Your task to perform on an android device: allow notifications from all sites in the chrome app Image 0: 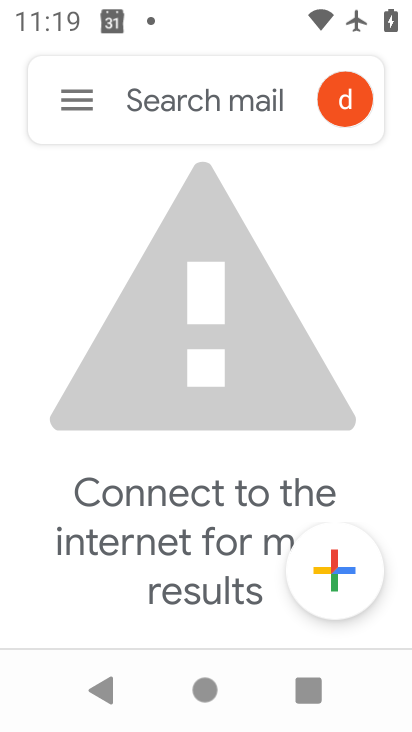
Step 0: press home button
Your task to perform on an android device: allow notifications from all sites in the chrome app Image 1: 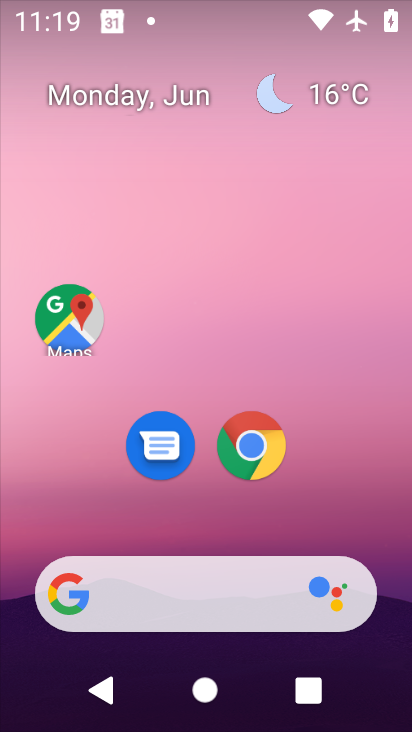
Step 1: click (274, 437)
Your task to perform on an android device: allow notifications from all sites in the chrome app Image 2: 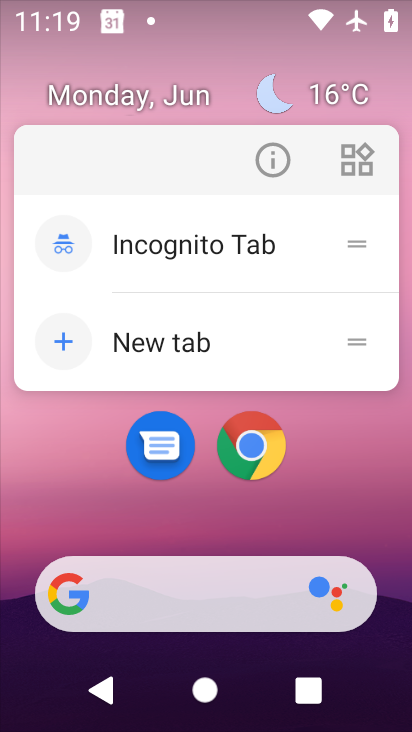
Step 2: click (263, 439)
Your task to perform on an android device: allow notifications from all sites in the chrome app Image 3: 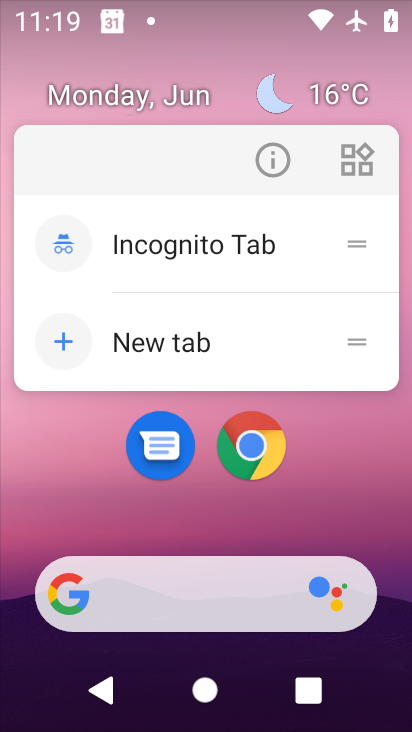
Step 3: click (246, 438)
Your task to perform on an android device: allow notifications from all sites in the chrome app Image 4: 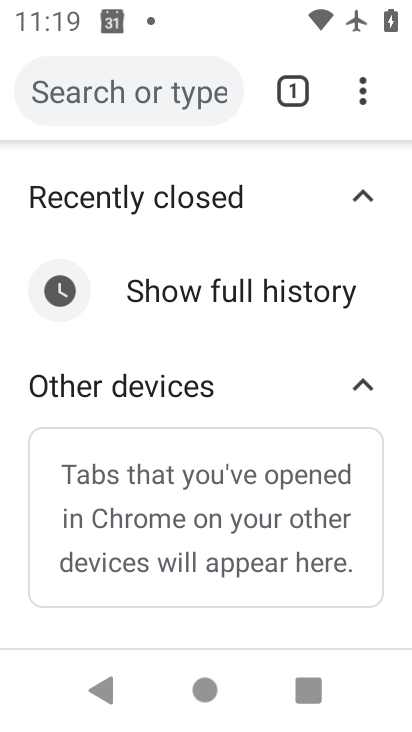
Step 4: drag from (357, 94) to (198, 478)
Your task to perform on an android device: allow notifications from all sites in the chrome app Image 5: 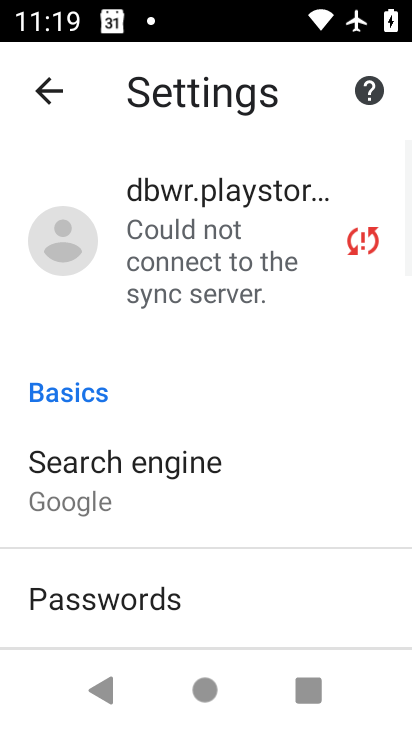
Step 5: drag from (309, 605) to (307, 209)
Your task to perform on an android device: allow notifications from all sites in the chrome app Image 6: 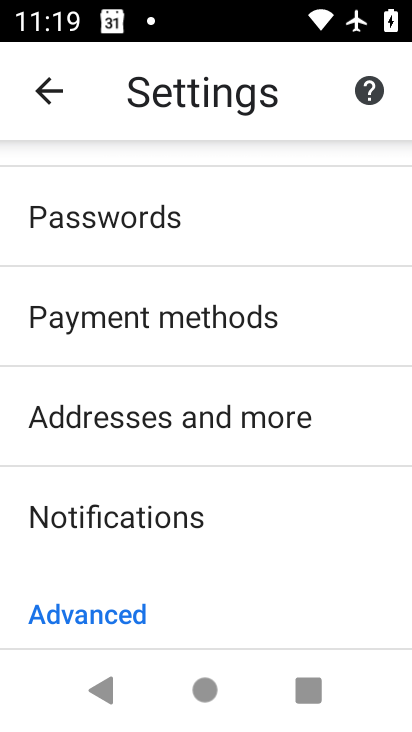
Step 6: drag from (376, 568) to (370, 221)
Your task to perform on an android device: allow notifications from all sites in the chrome app Image 7: 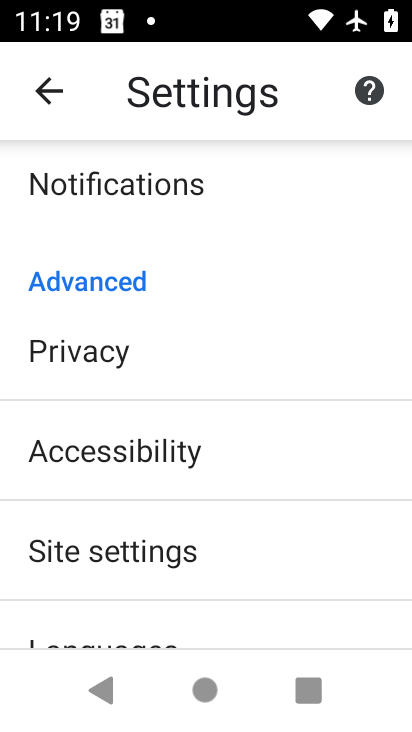
Step 7: click (121, 564)
Your task to perform on an android device: allow notifications from all sites in the chrome app Image 8: 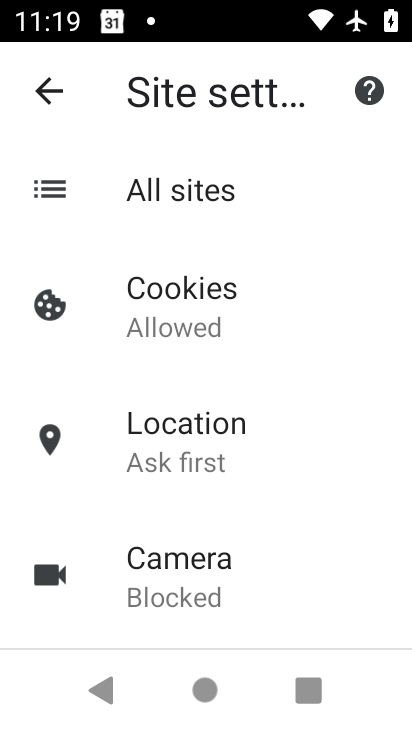
Step 8: drag from (331, 540) to (346, 1)
Your task to perform on an android device: allow notifications from all sites in the chrome app Image 9: 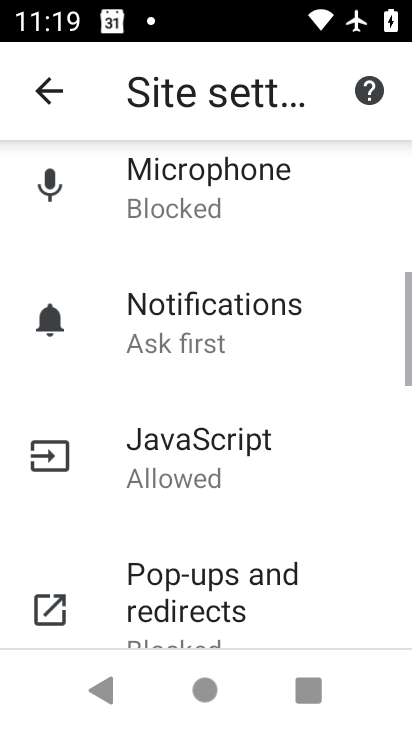
Step 9: click (224, 310)
Your task to perform on an android device: allow notifications from all sites in the chrome app Image 10: 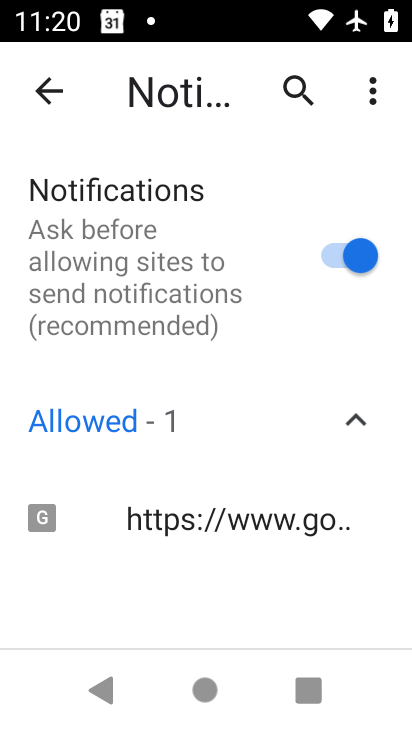
Step 10: task complete